Your task to perform on an android device: toggle improve location accuracy Image 0: 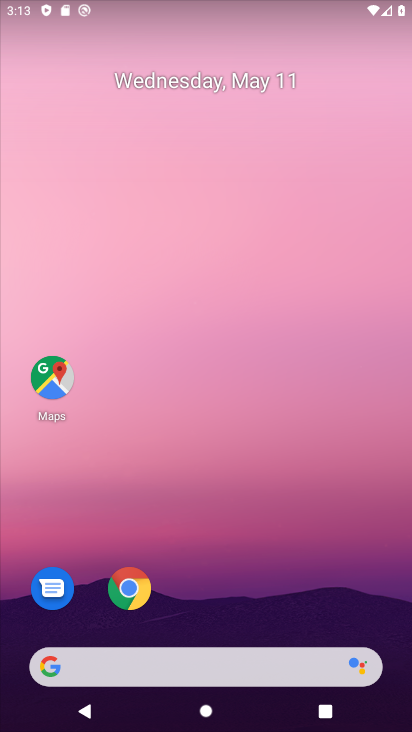
Step 0: drag from (232, 604) to (313, 0)
Your task to perform on an android device: toggle improve location accuracy Image 1: 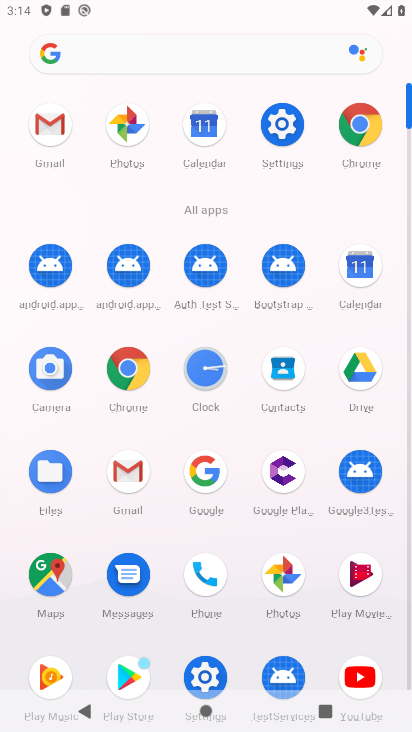
Step 1: click (298, 146)
Your task to perform on an android device: toggle improve location accuracy Image 2: 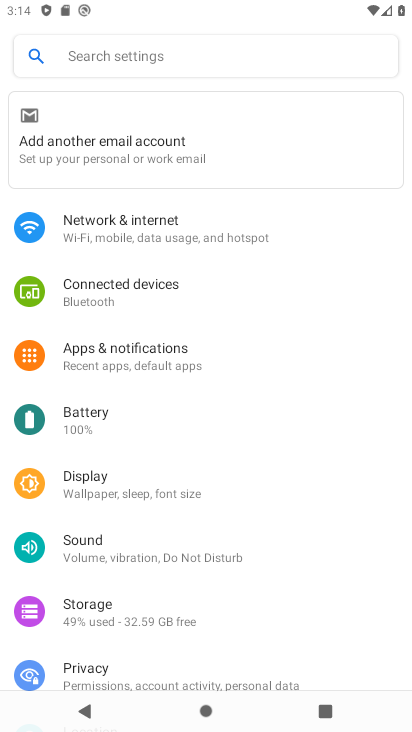
Step 2: drag from (99, 579) to (191, 261)
Your task to perform on an android device: toggle improve location accuracy Image 3: 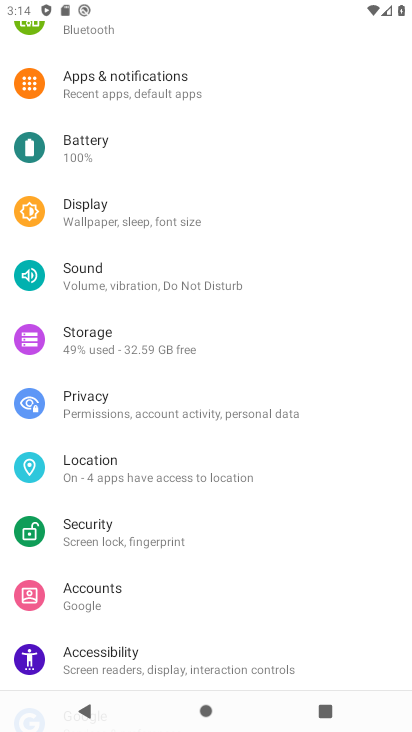
Step 3: click (100, 468)
Your task to perform on an android device: toggle improve location accuracy Image 4: 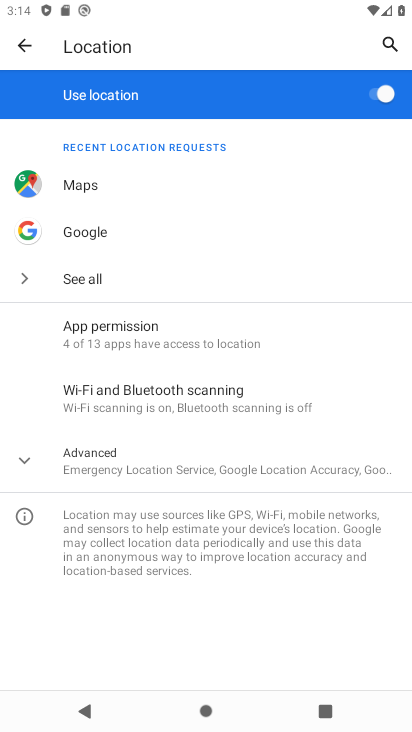
Step 4: click (112, 459)
Your task to perform on an android device: toggle improve location accuracy Image 5: 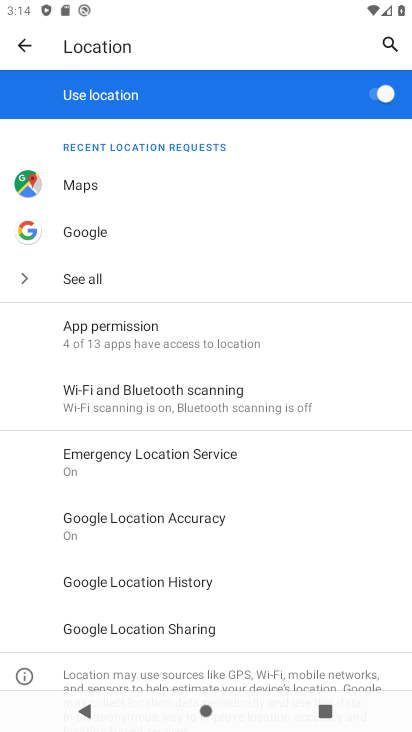
Step 5: click (190, 517)
Your task to perform on an android device: toggle improve location accuracy Image 6: 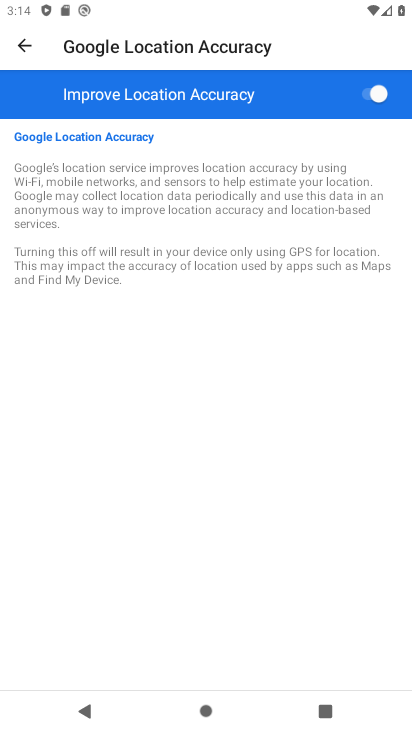
Step 6: click (366, 86)
Your task to perform on an android device: toggle improve location accuracy Image 7: 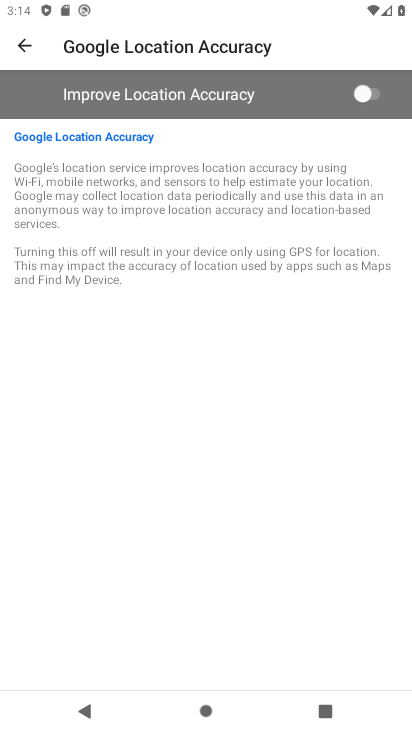
Step 7: task complete